Your task to perform on an android device: all mails in gmail Image 0: 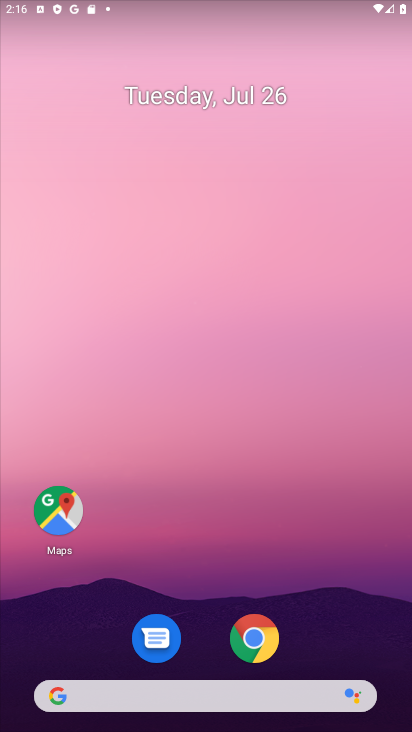
Step 0: drag from (120, 719) to (226, 35)
Your task to perform on an android device: all mails in gmail Image 1: 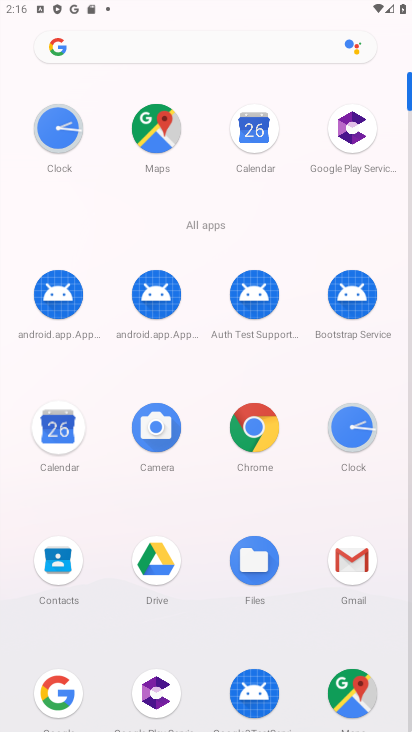
Step 1: click (350, 556)
Your task to perform on an android device: all mails in gmail Image 2: 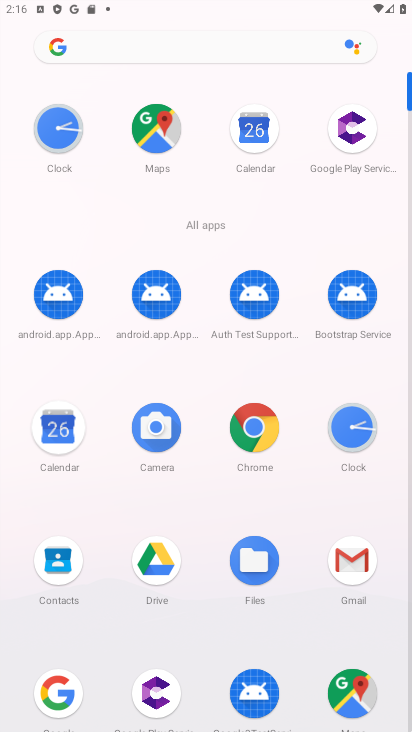
Step 2: click (350, 556)
Your task to perform on an android device: all mails in gmail Image 3: 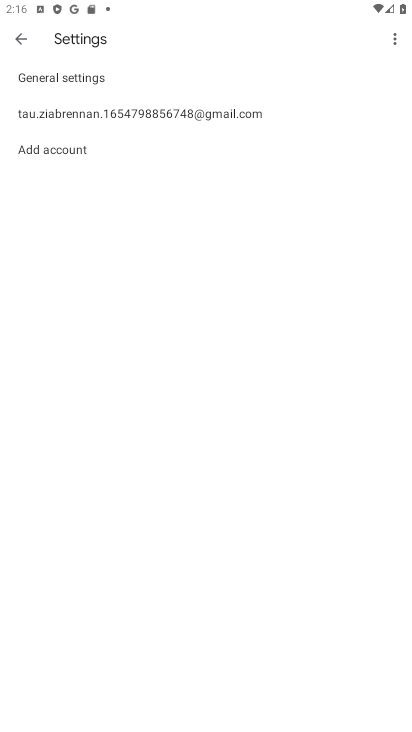
Step 3: press back button
Your task to perform on an android device: all mails in gmail Image 4: 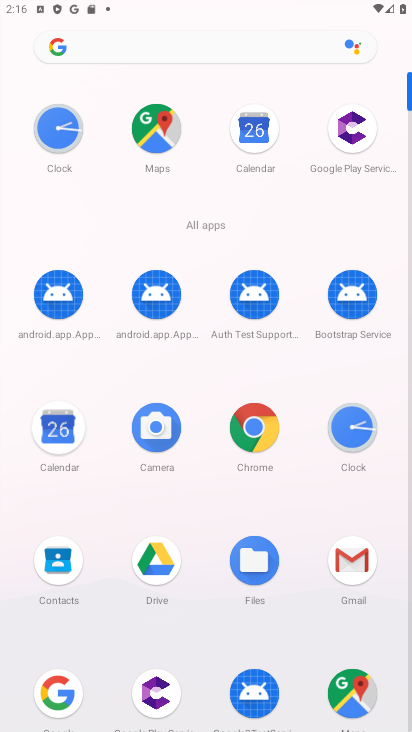
Step 4: click (363, 565)
Your task to perform on an android device: all mails in gmail Image 5: 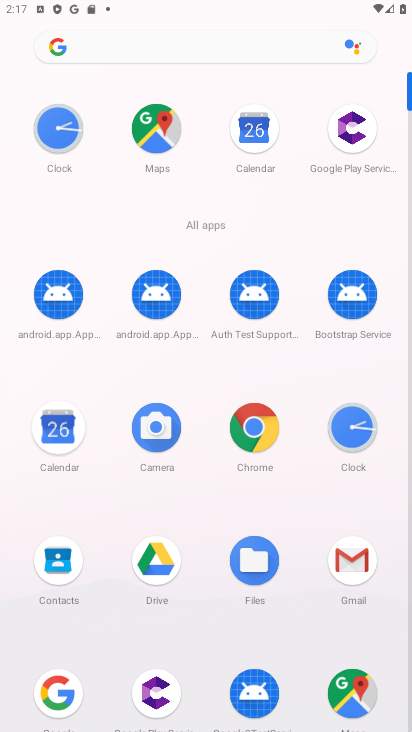
Step 5: click (363, 565)
Your task to perform on an android device: all mails in gmail Image 6: 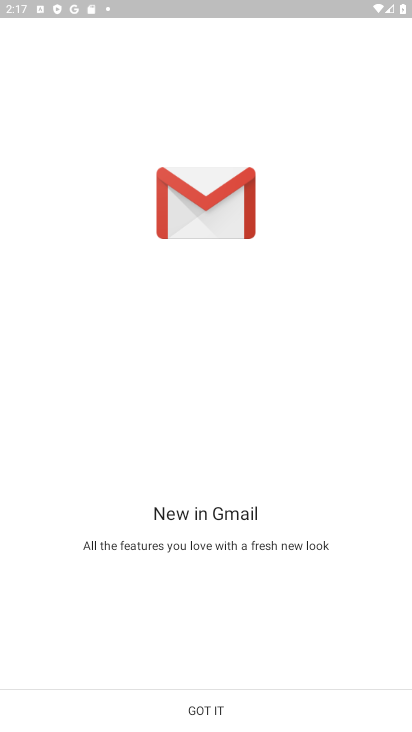
Step 6: click (204, 697)
Your task to perform on an android device: all mails in gmail Image 7: 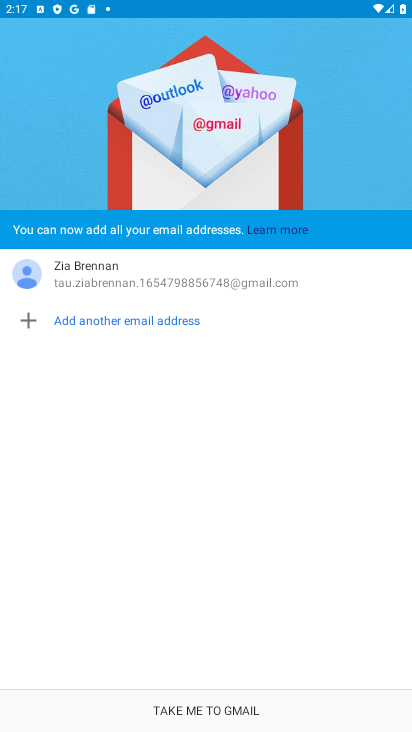
Step 7: click (193, 724)
Your task to perform on an android device: all mails in gmail Image 8: 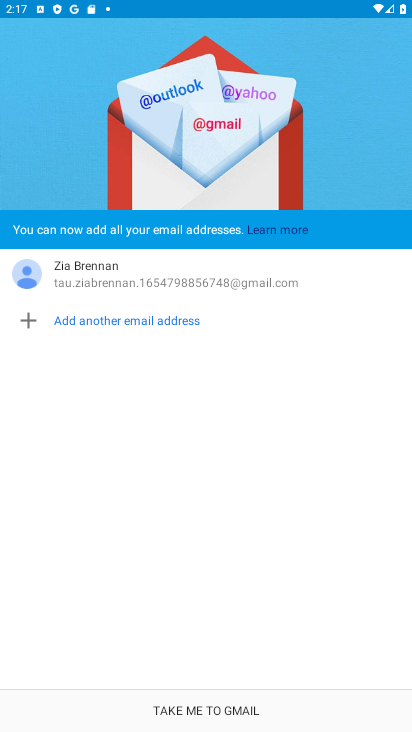
Step 8: click (193, 724)
Your task to perform on an android device: all mails in gmail Image 9: 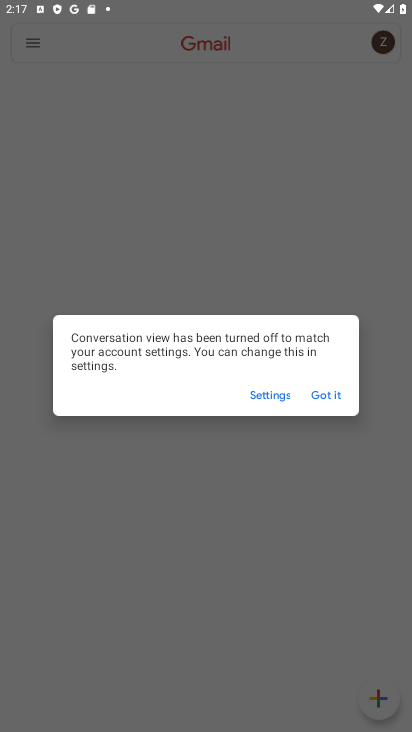
Step 9: click (335, 399)
Your task to perform on an android device: all mails in gmail Image 10: 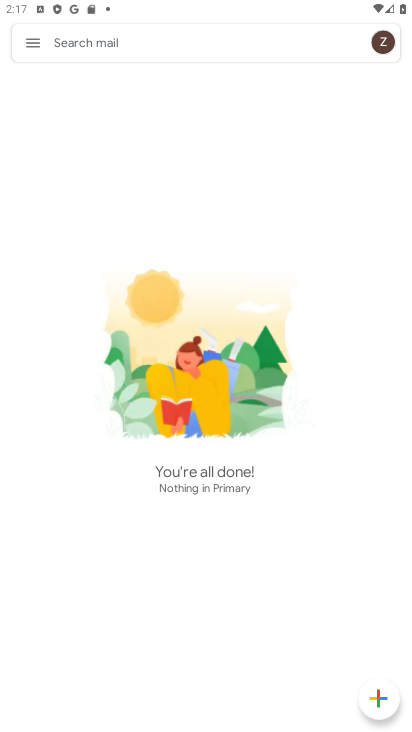
Step 10: click (24, 40)
Your task to perform on an android device: all mails in gmail Image 11: 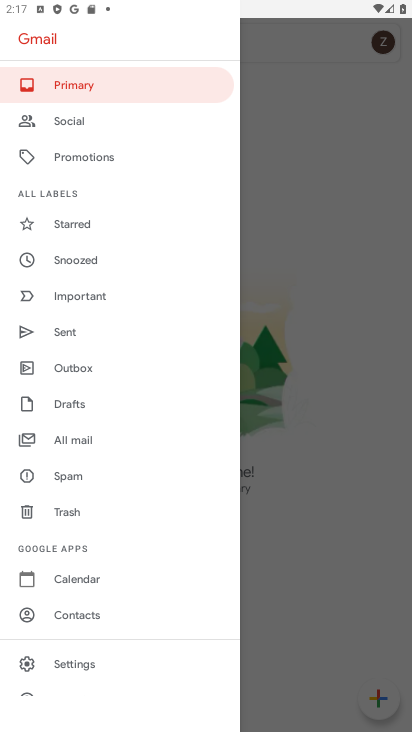
Step 11: click (91, 442)
Your task to perform on an android device: all mails in gmail Image 12: 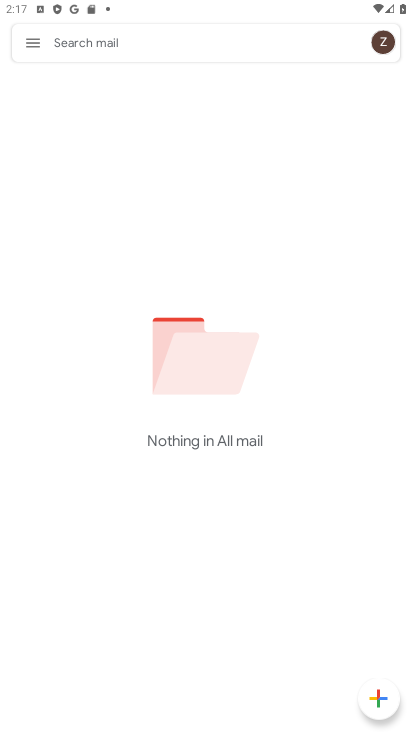
Step 12: task complete